Your task to perform on an android device: Open location settings Image 0: 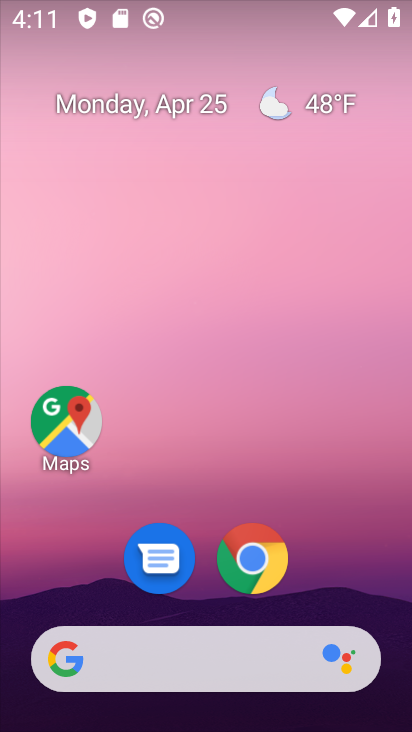
Step 0: drag from (350, 379) to (358, 88)
Your task to perform on an android device: Open location settings Image 1: 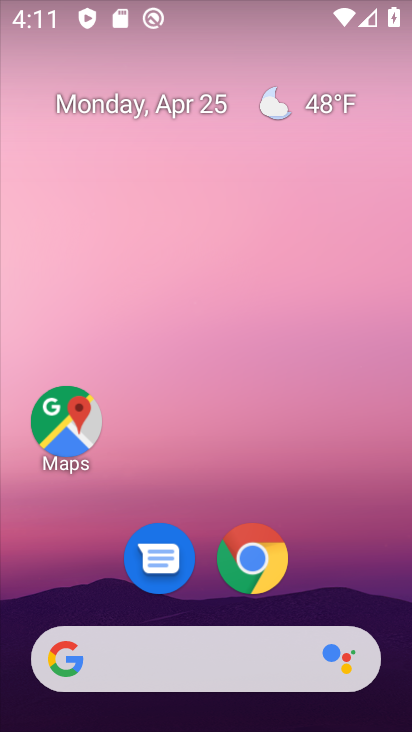
Step 1: drag from (345, 555) to (383, 31)
Your task to perform on an android device: Open location settings Image 2: 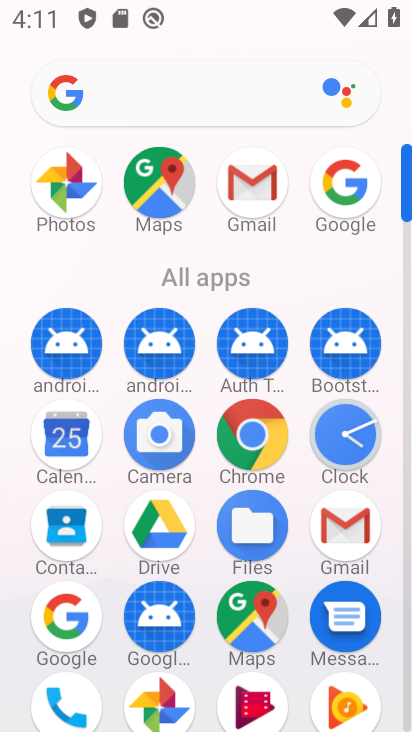
Step 2: drag from (384, 449) to (404, 369)
Your task to perform on an android device: Open location settings Image 3: 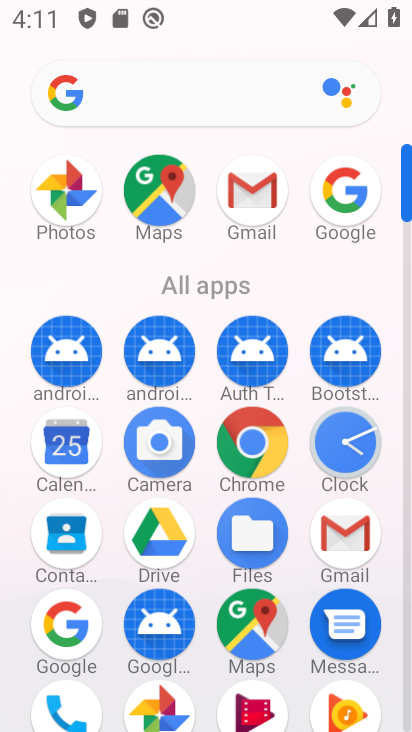
Step 3: drag from (396, 400) to (412, 366)
Your task to perform on an android device: Open location settings Image 4: 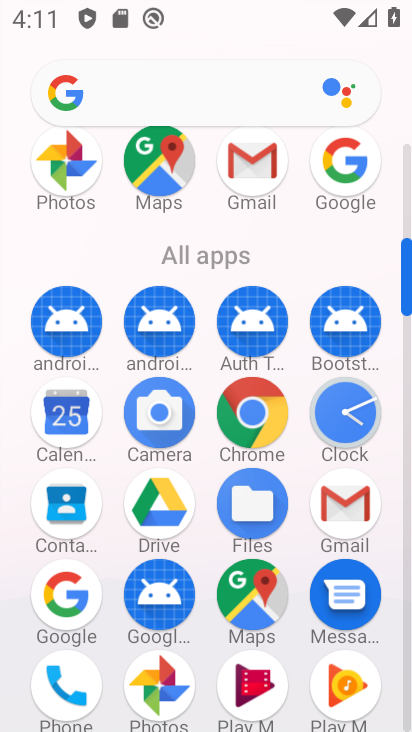
Step 4: drag from (408, 551) to (410, 139)
Your task to perform on an android device: Open location settings Image 5: 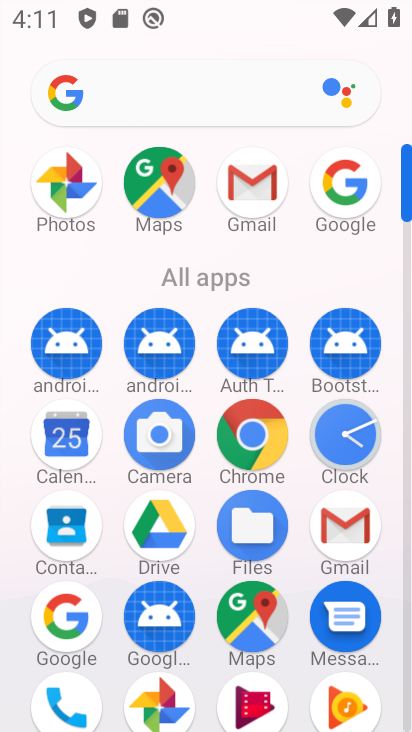
Step 5: drag from (387, 539) to (410, 202)
Your task to perform on an android device: Open location settings Image 6: 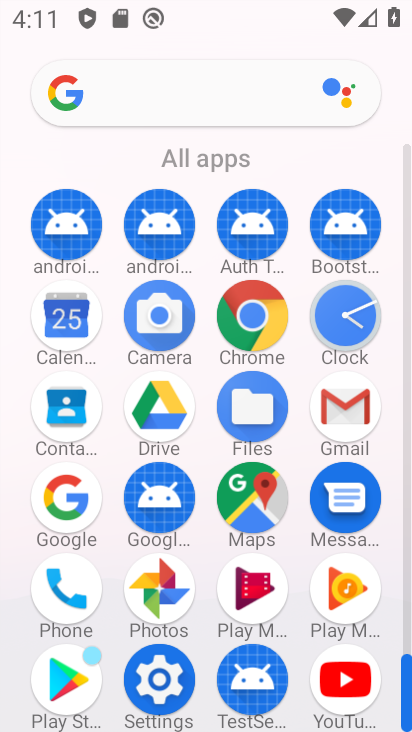
Step 6: click (158, 683)
Your task to perform on an android device: Open location settings Image 7: 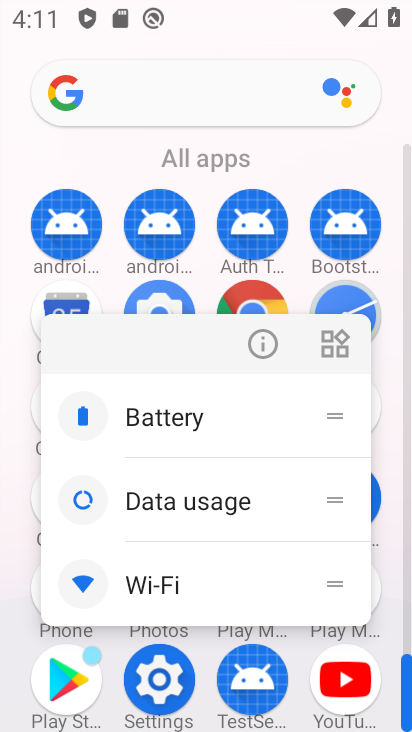
Step 7: click (152, 685)
Your task to perform on an android device: Open location settings Image 8: 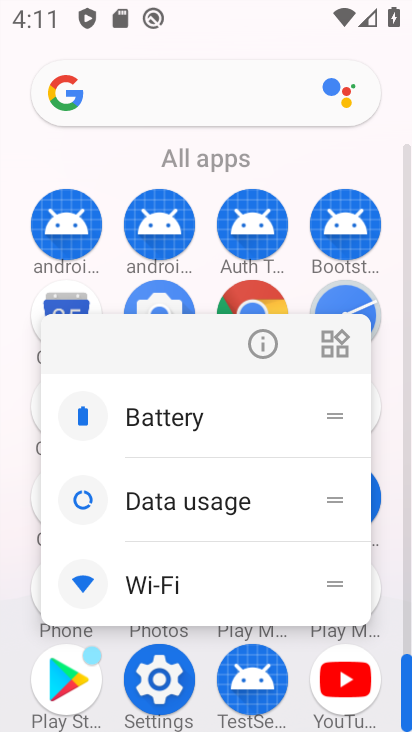
Step 8: click (166, 681)
Your task to perform on an android device: Open location settings Image 9: 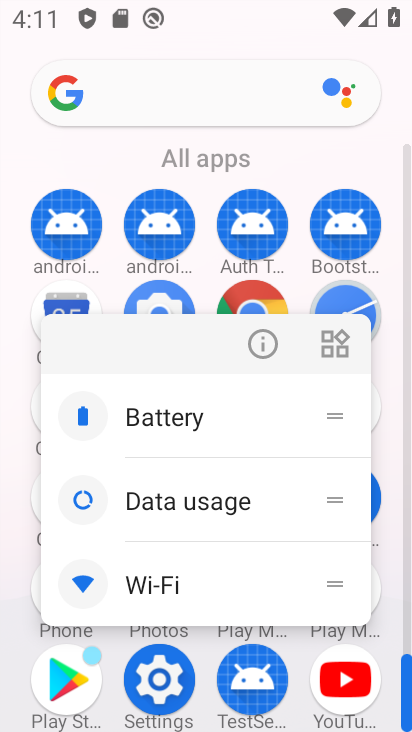
Step 9: click (167, 680)
Your task to perform on an android device: Open location settings Image 10: 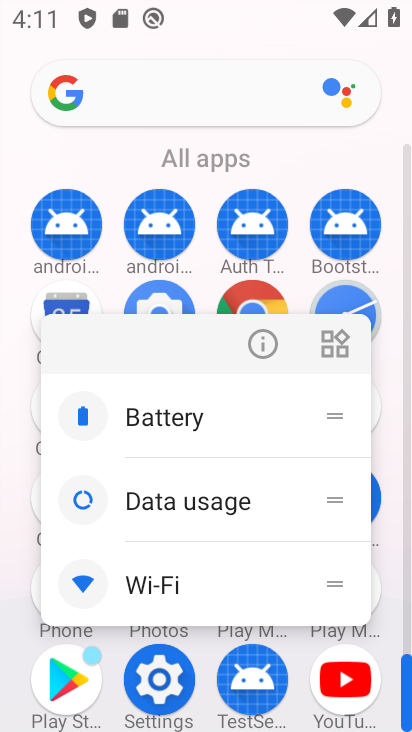
Step 10: click (167, 679)
Your task to perform on an android device: Open location settings Image 11: 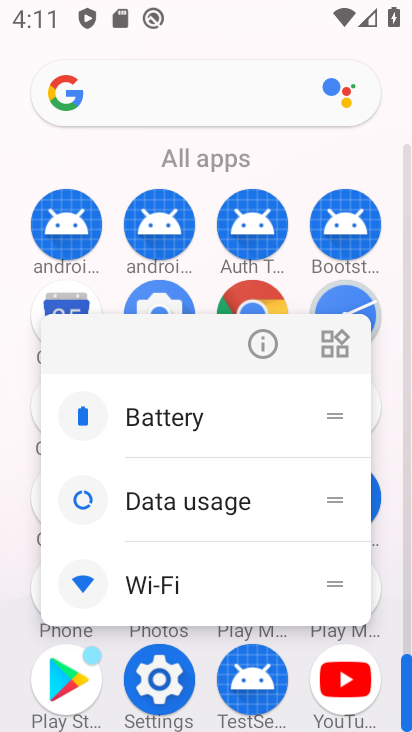
Step 11: click (160, 684)
Your task to perform on an android device: Open location settings Image 12: 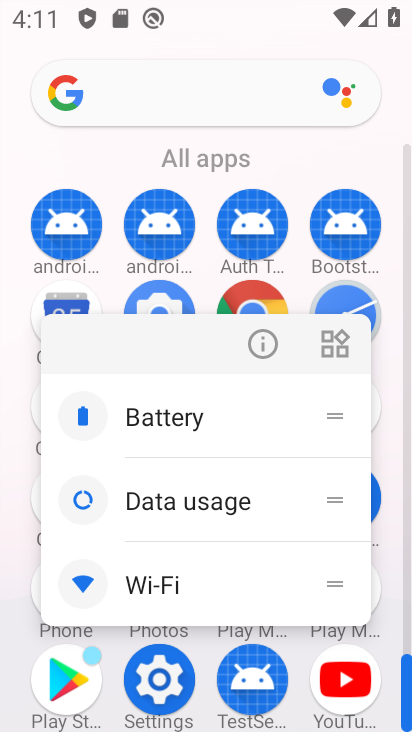
Step 12: click (162, 685)
Your task to perform on an android device: Open location settings Image 13: 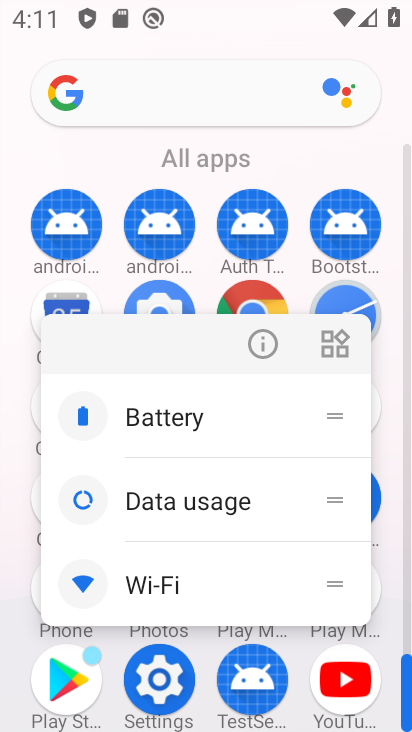
Step 13: click (161, 683)
Your task to perform on an android device: Open location settings Image 14: 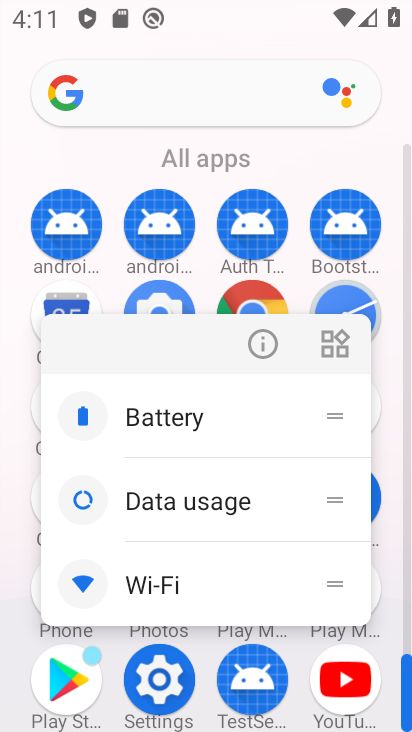
Step 14: click (161, 682)
Your task to perform on an android device: Open location settings Image 15: 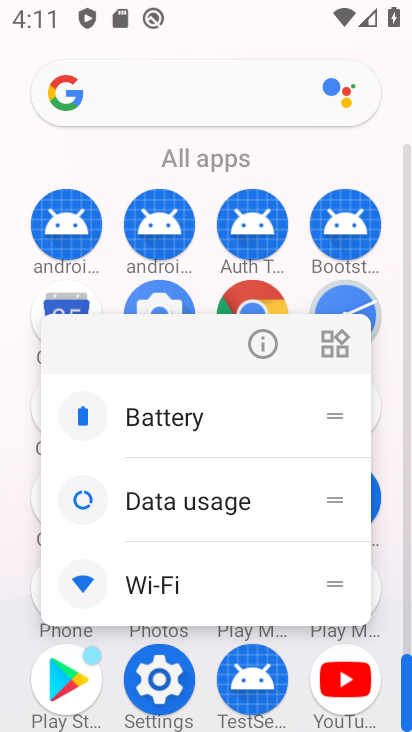
Step 15: click (161, 681)
Your task to perform on an android device: Open location settings Image 16: 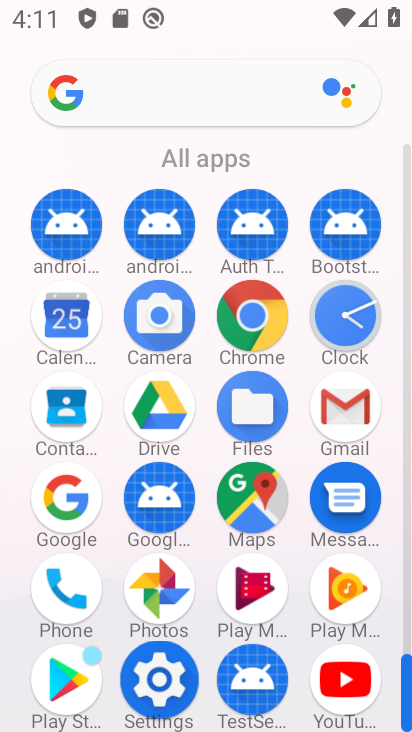
Step 16: click (161, 680)
Your task to perform on an android device: Open location settings Image 17: 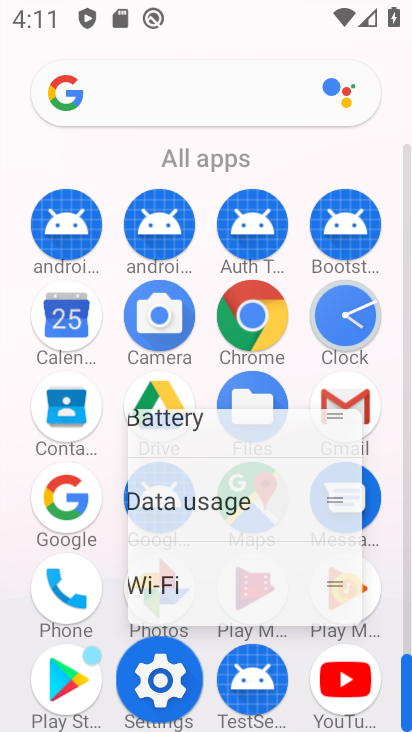
Step 17: click (161, 680)
Your task to perform on an android device: Open location settings Image 18: 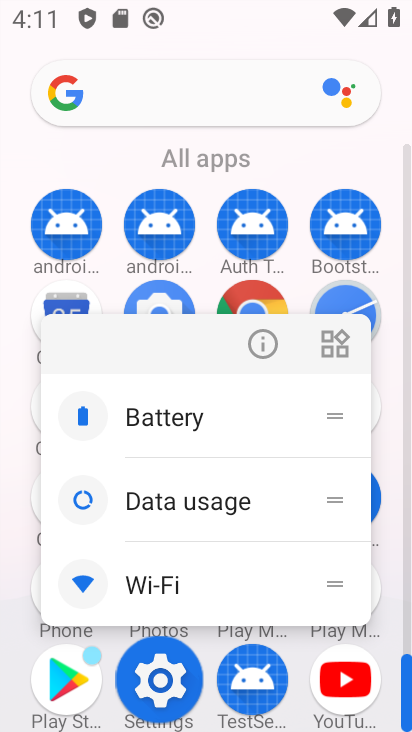
Step 18: click (161, 680)
Your task to perform on an android device: Open location settings Image 19: 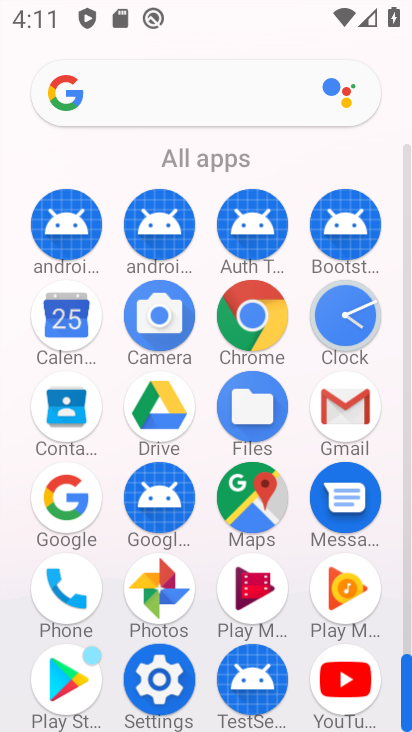
Step 19: click (161, 680)
Your task to perform on an android device: Open location settings Image 20: 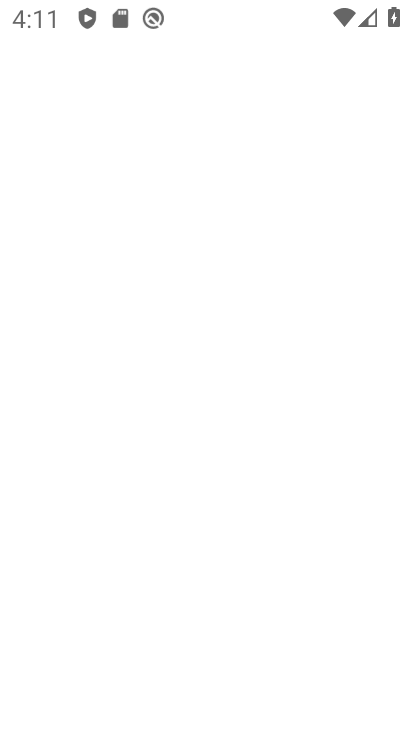
Step 20: click (162, 658)
Your task to perform on an android device: Open location settings Image 21: 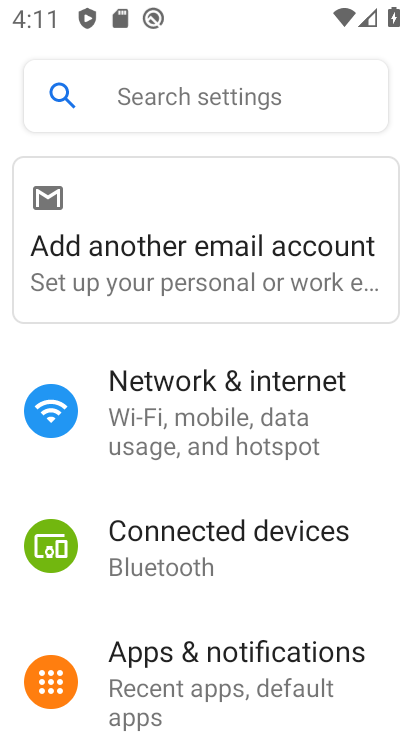
Step 21: drag from (279, 591) to (302, 130)
Your task to perform on an android device: Open location settings Image 22: 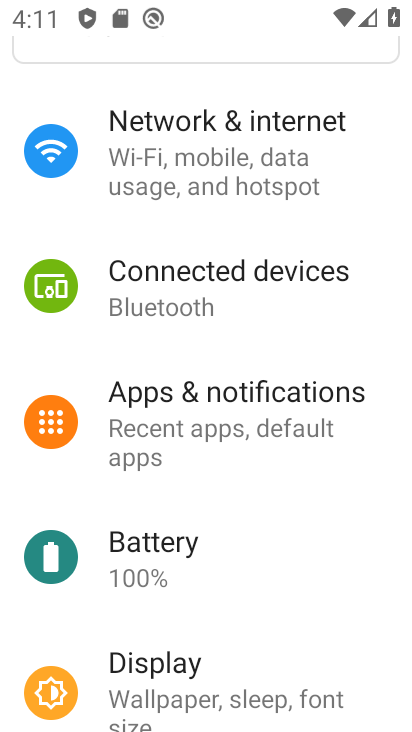
Step 22: drag from (249, 557) to (299, 191)
Your task to perform on an android device: Open location settings Image 23: 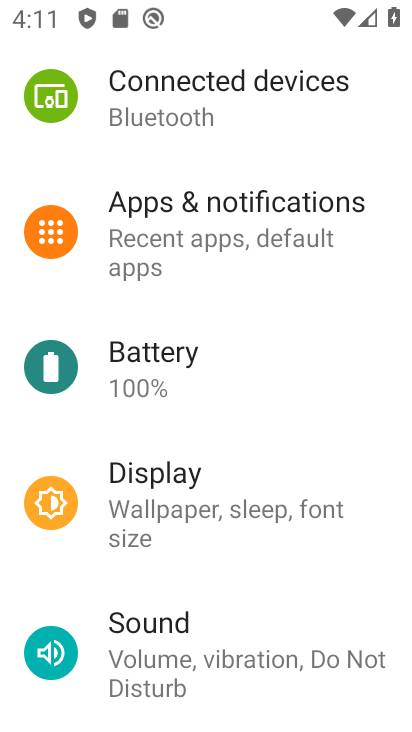
Step 23: drag from (299, 514) to (302, 189)
Your task to perform on an android device: Open location settings Image 24: 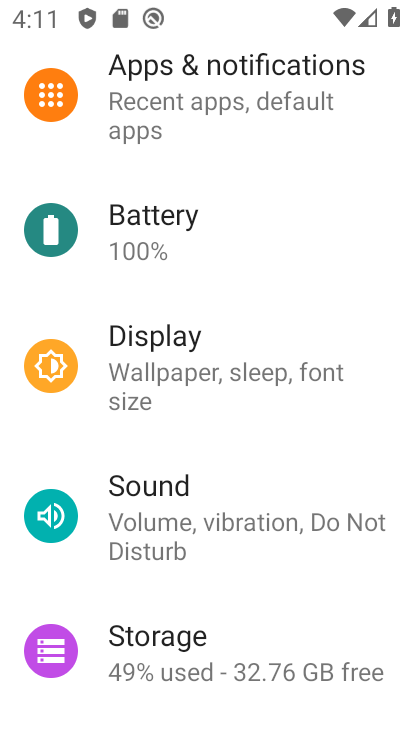
Step 24: drag from (251, 606) to (298, 176)
Your task to perform on an android device: Open location settings Image 25: 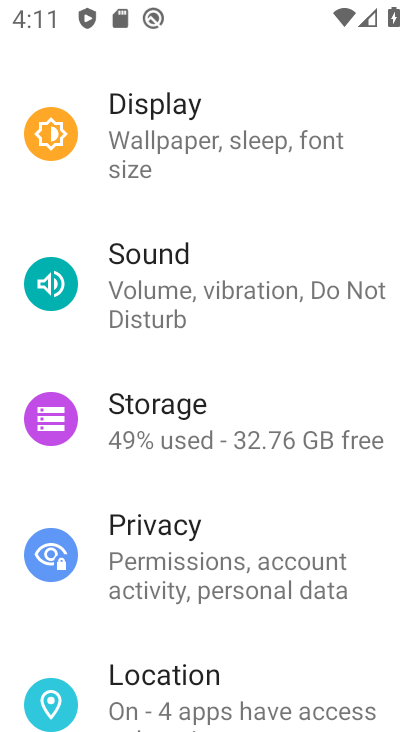
Step 25: drag from (283, 577) to (317, 139)
Your task to perform on an android device: Open location settings Image 26: 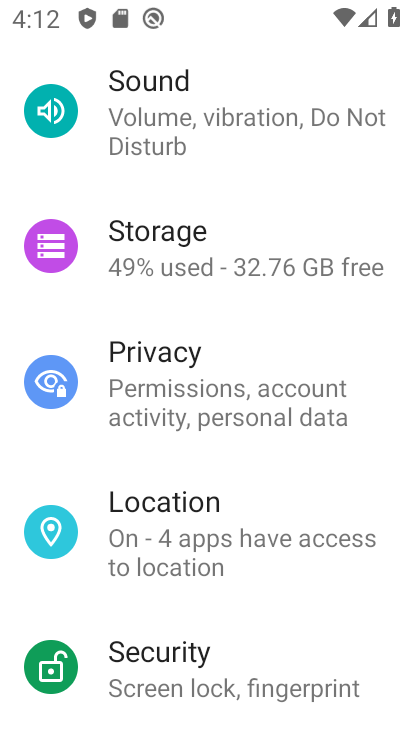
Step 26: click (240, 527)
Your task to perform on an android device: Open location settings Image 27: 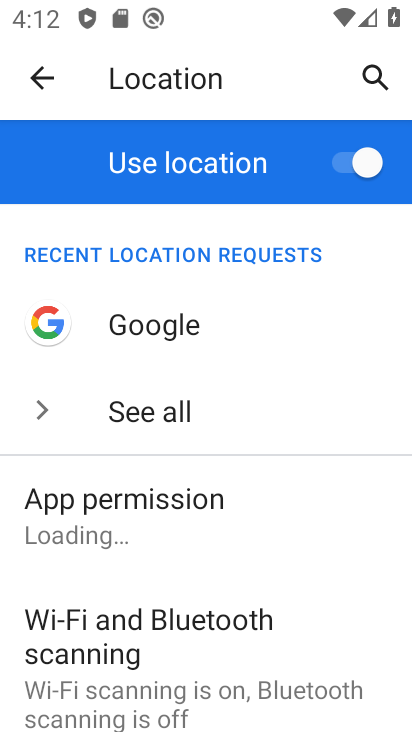
Step 27: task complete